Your task to perform on an android device: check android version Image 0: 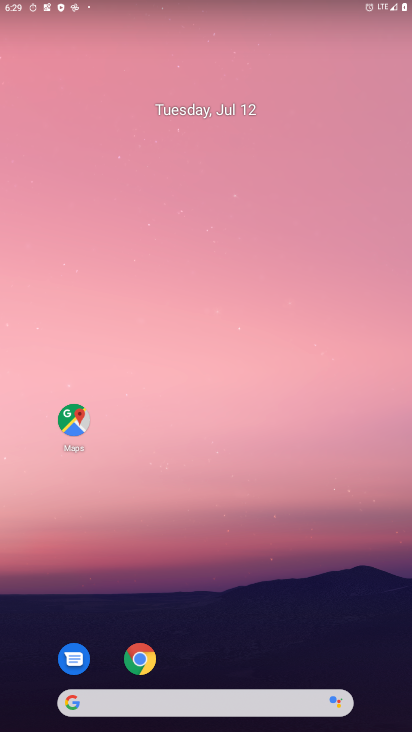
Step 0: press home button
Your task to perform on an android device: check android version Image 1: 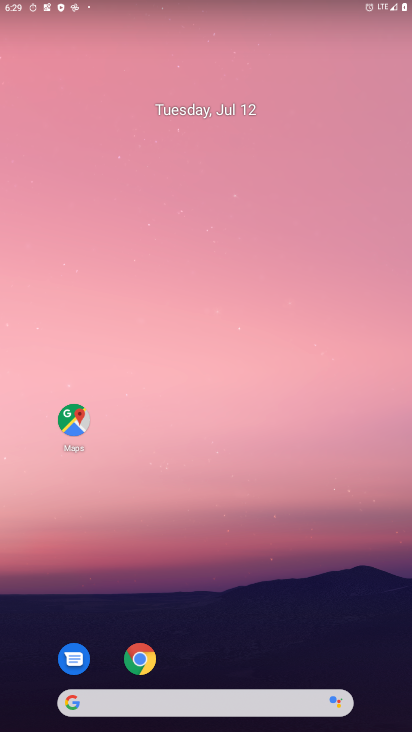
Step 1: drag from (187, 317) to (201, 24)
Your task to perform on an android device: check android version Image 2: 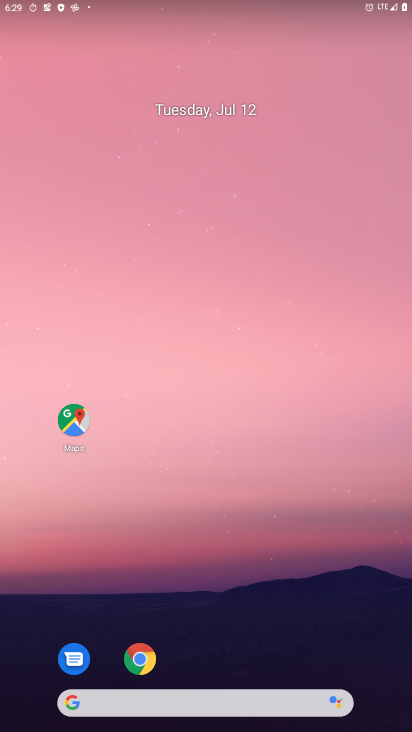
Step 2: drag from (199, 580) to (188, 57)
Your task to perform on an android device: check android version Image 3: 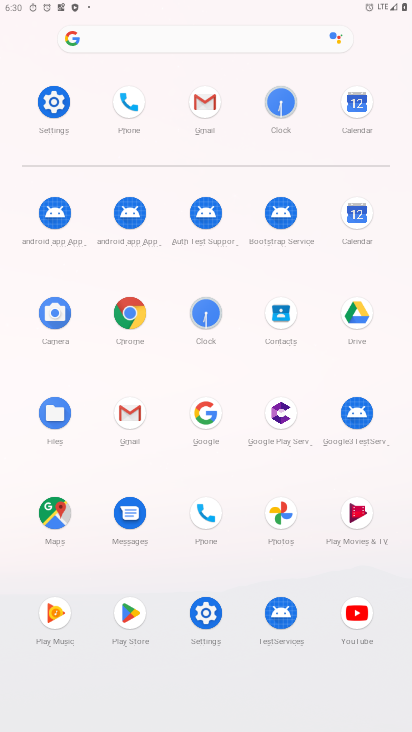
Step 3: click (53, 121)
Your task to perform on an android device: check android version Image 4: 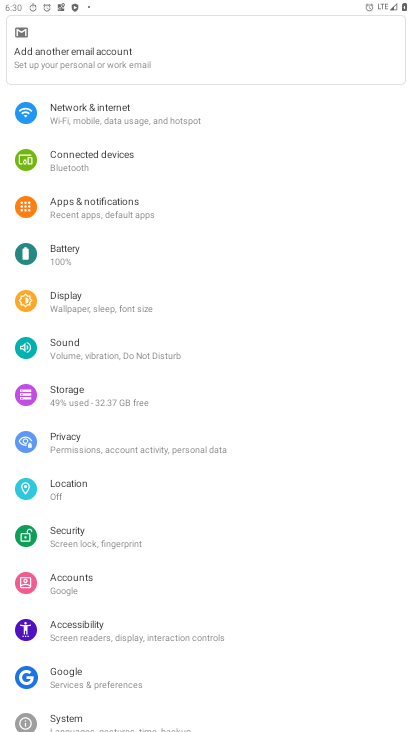
Step 4: drag from (116, 593) to (196, 146)
Your task to perform on an android device: check android version Image 5: 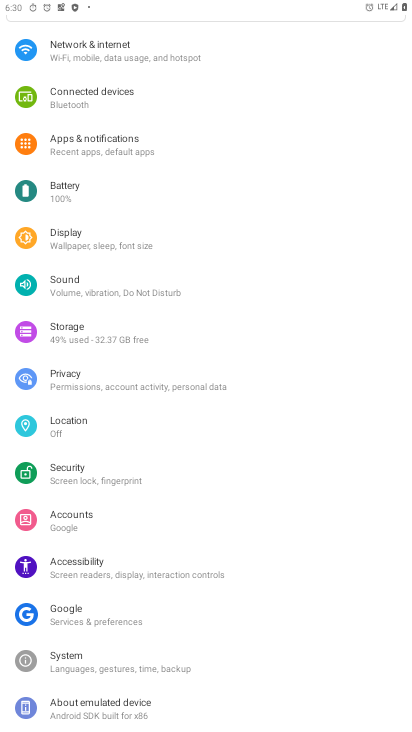
Step 5: click (64, 699)
Your task to perform on an android device: check android version Image 6: 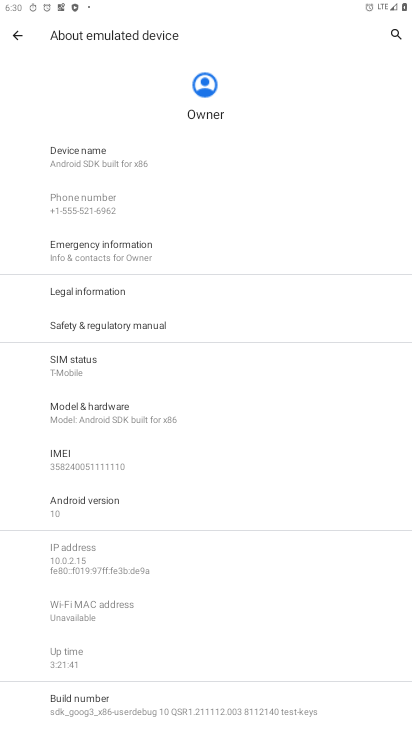
Step 6: click (95, 502)
Your task to perform on an android device: check android version Image 7: 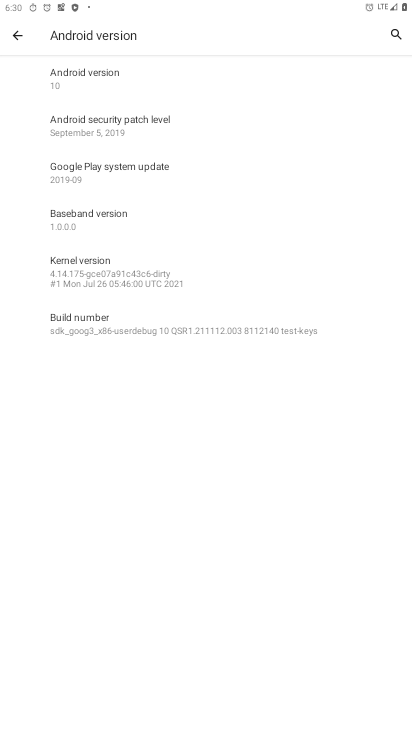
Step 7: task complete